Your task to perform on an android device: Open Yahoo.com Image 0: 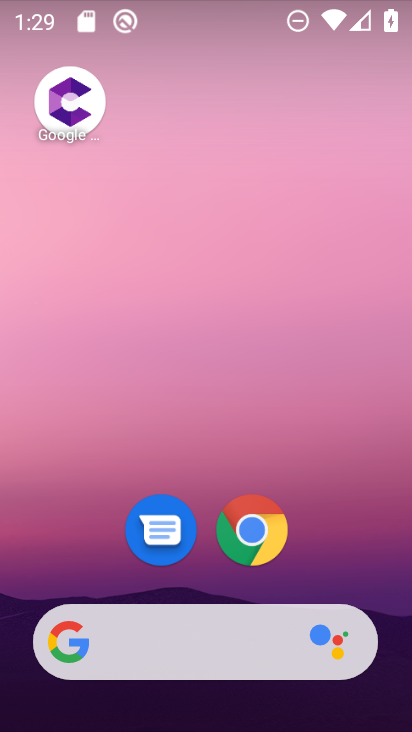
Step 0: click (256, 531)
Your task to perform on an android device: Open Yahoo.com Image 1: 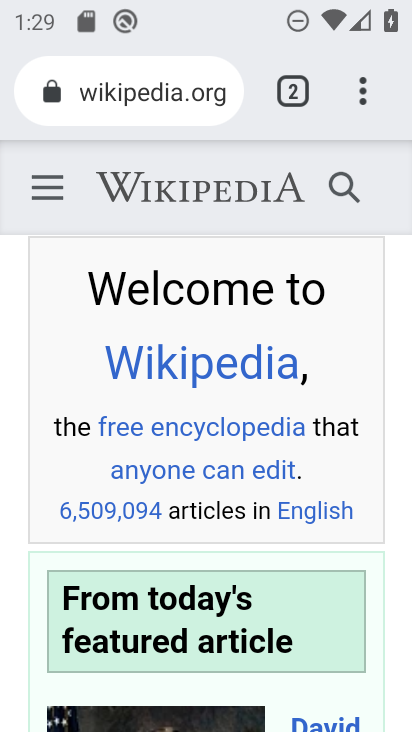
Step 1: click (186, 103)
Your task to perform on an android device: Open Yahoo.com Image 2: 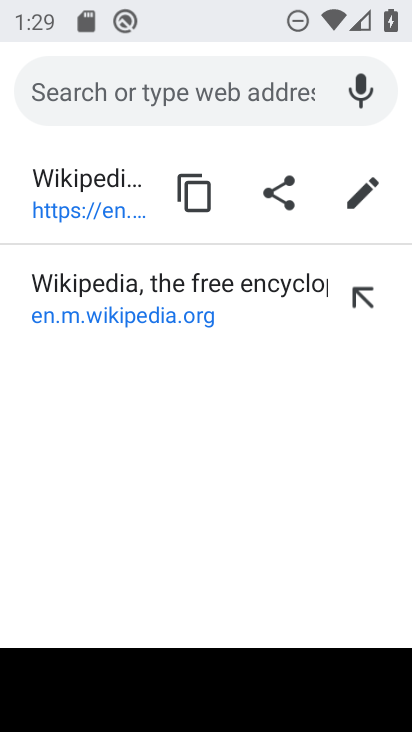
Step 2: click (218, 79)
Your task to perform on an android device: Open Yahoo.com Image 3: 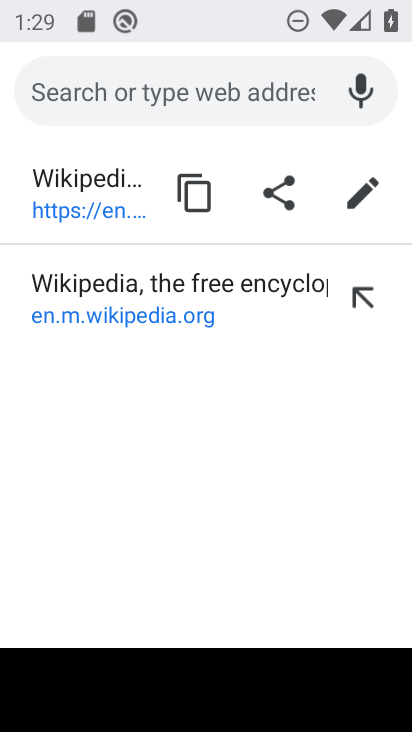
Step 3: type "Yahoo.com"
Your task to perform on an android device: Open Yahoo.com Image 4: 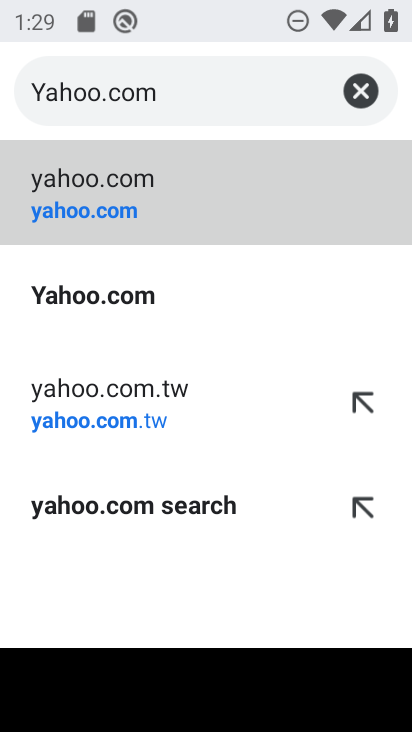
Step 4: click (98, 302)
Your task to perform on an android device: Open Yahoo.com Image 5: 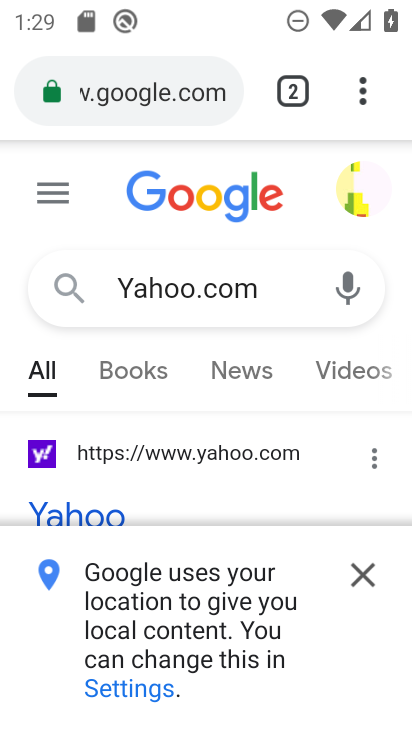
Step 5: click (371, 577)
Your task to perform on an android device: Open Yahoo.com Image 6: 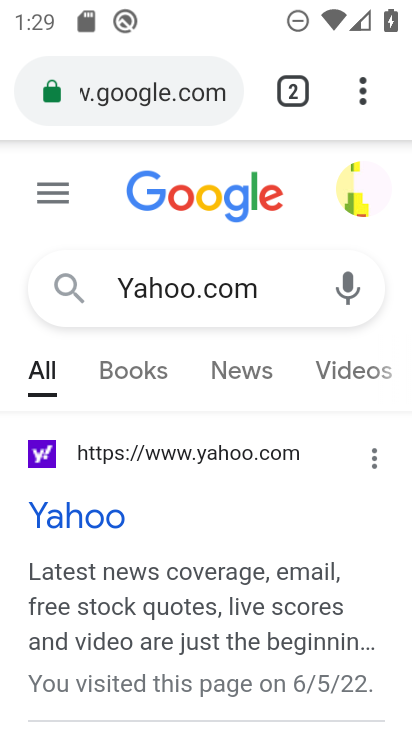
Step 6: click (83, 503)
Your task to perform on an android device: Open Yahoo.com Image 7: 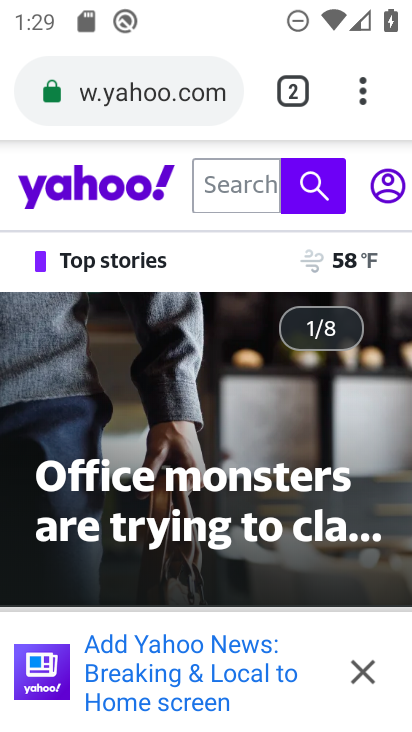
Step 7: task complete